Your task to perform on an android device: Go to CNN.com Image 0: 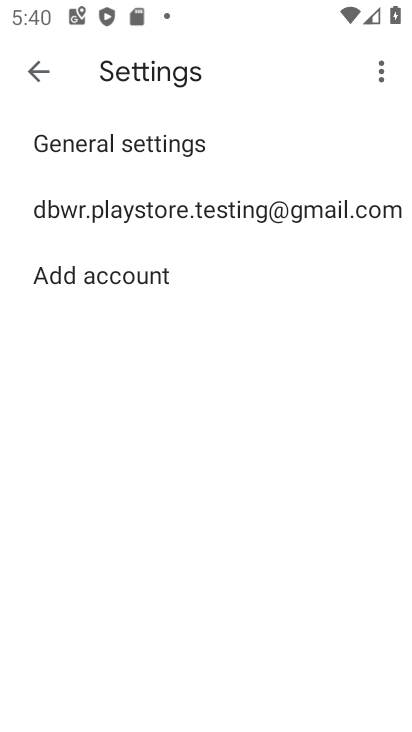
Step 0: press home button
Your task to perform on an android device: Go to CNN.com Image 1: 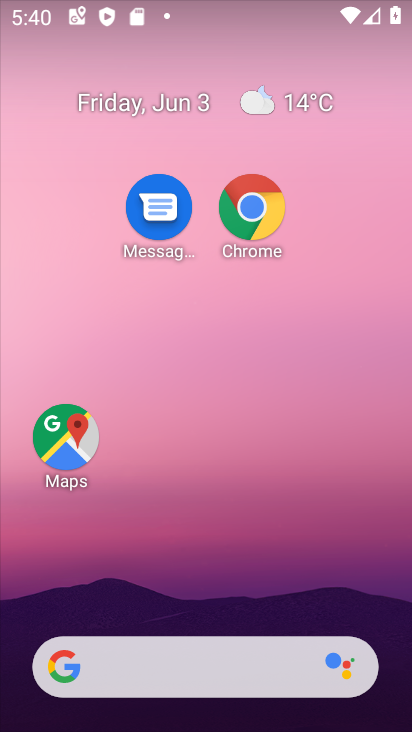
Step 1: click (241, 228)
Your task to perform on an android device: Go to CNN.com Image 2: 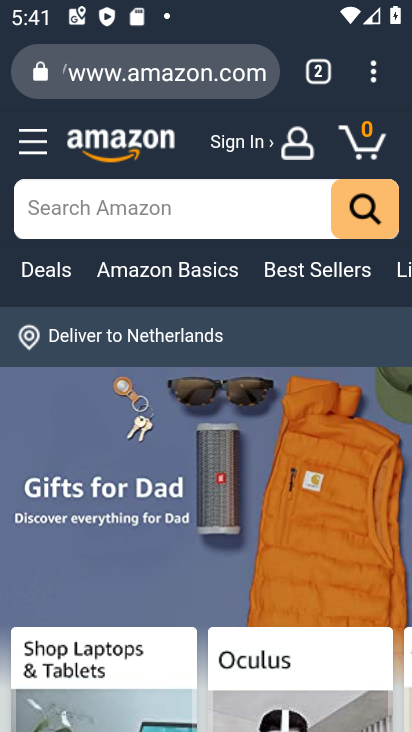
Step 2: click (180, 87)
Your task to perform on an android device: Go to CNN.com Image 3: 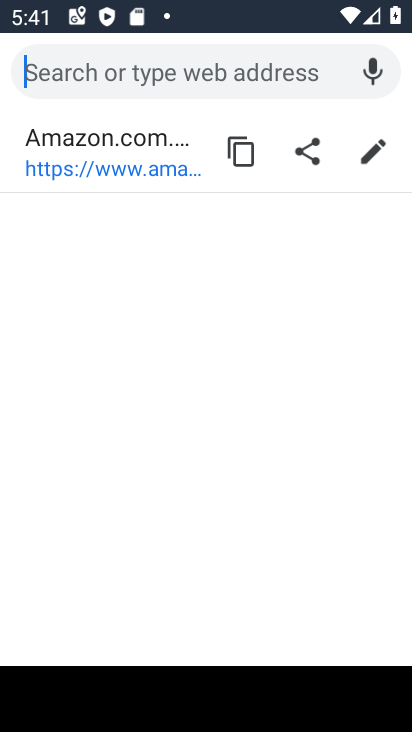
Step 3: type "www.cnn.com"
Your task to perform on an android device: Go to CNN.com Image 4: 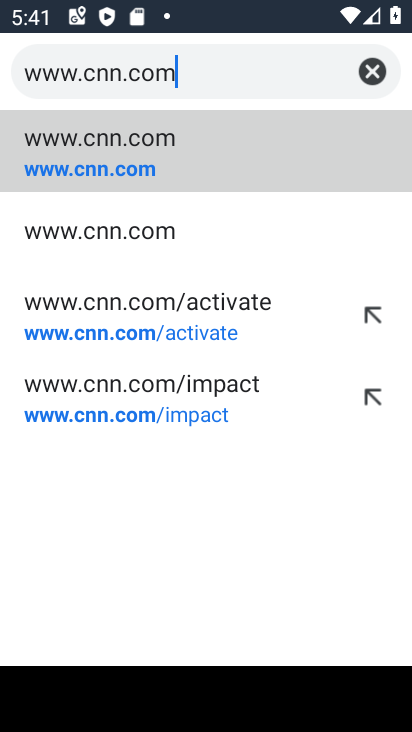
Step 4: click (118, 153)
Your task to perform on an android device: Go to CNN.com Image 5: 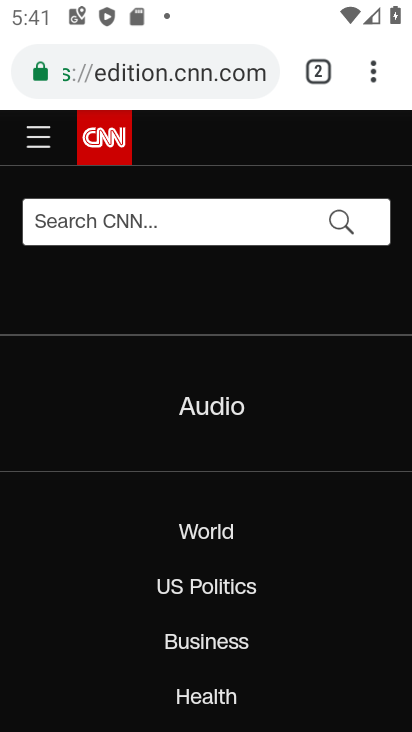
Step 5: task complete